Your task to perform on an android device: Go to display settings Image 0: 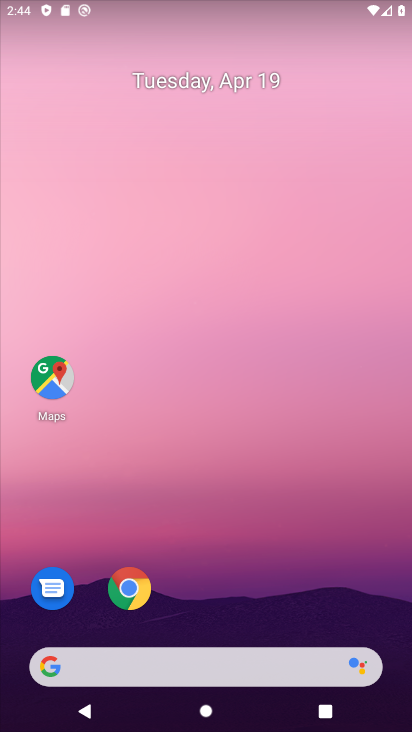
Step 0: drag from (228, 689) to (195, 259)
Your task to perform on an android device: Go to display settings Image 1: 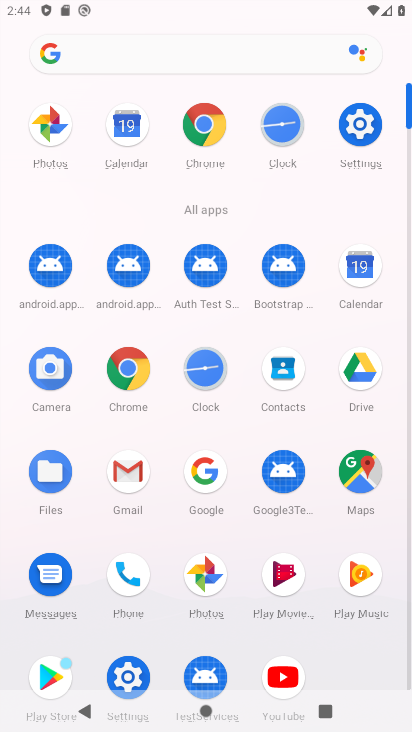
Step 1: click (130, 670)
Your task to perform on an android device: Go to display settings Image 2: 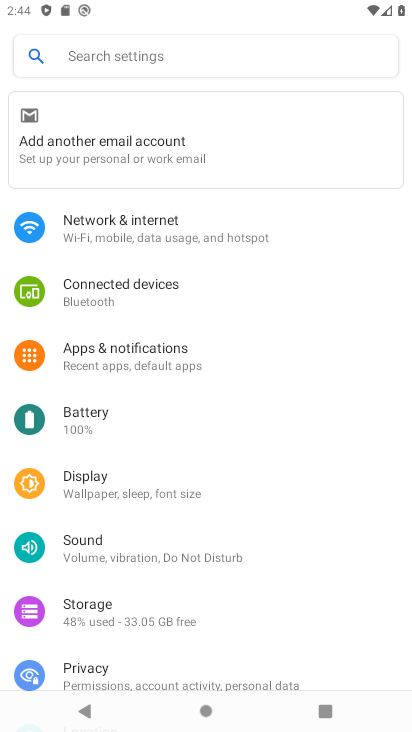
Step 2: click (122, 486)
Your task to perform on an android device: Go to display settings Image 3: 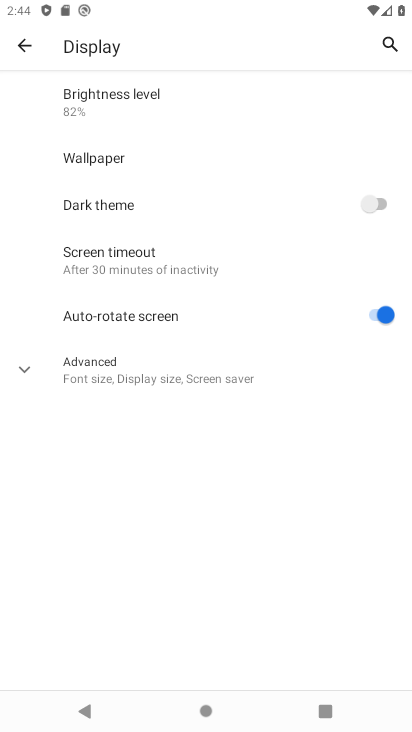
Step 3: click (19, 385)
Your task to perform on an android device: Go to display settings Image 4: 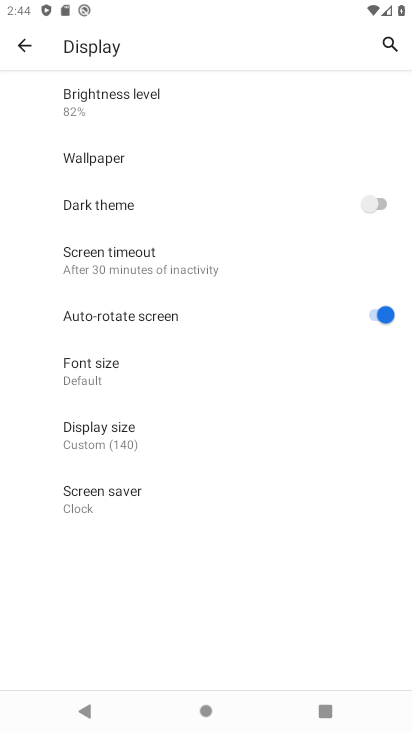
Step 4: task complete